Your task to perform on an android device: toggle improve location accuracy Image 0: 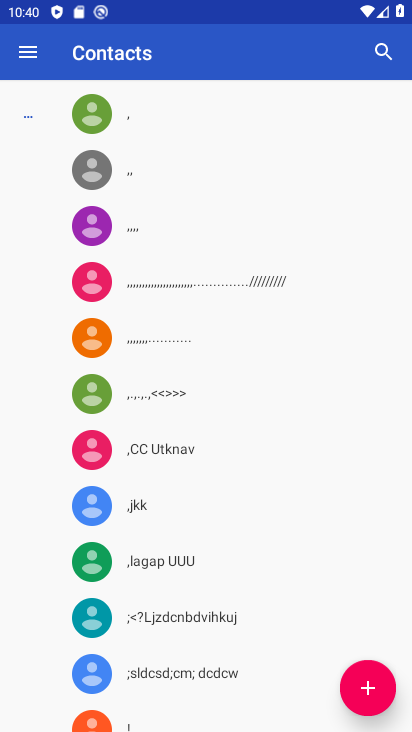
Step 0: press home button
Your task to perform on an android device: toggle improve location accuracy Image 1: 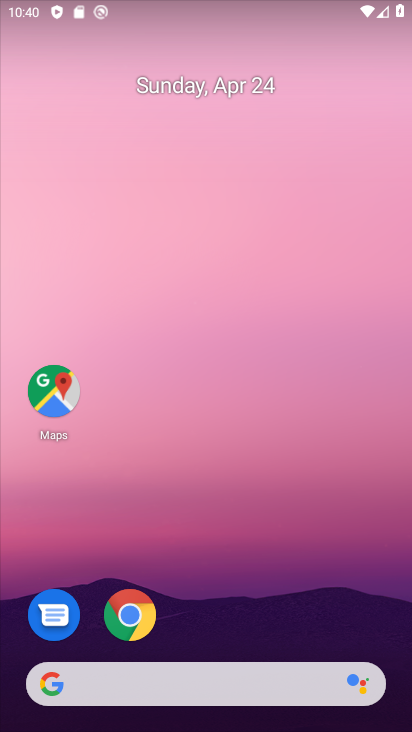
Step 1: drag from (222, 625) to (268, 3)
Your task to perform on an android device: toggle improve location accuracy Image 2: 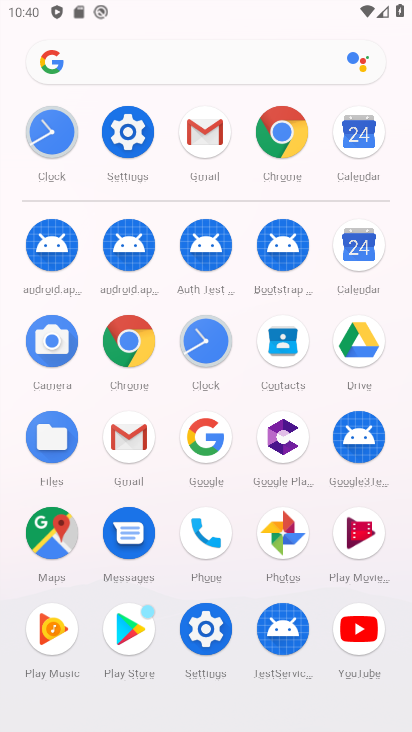
Step 2: click (202, 629)
Your task to perform on an android device: toggle improve location accuracy Image 3: 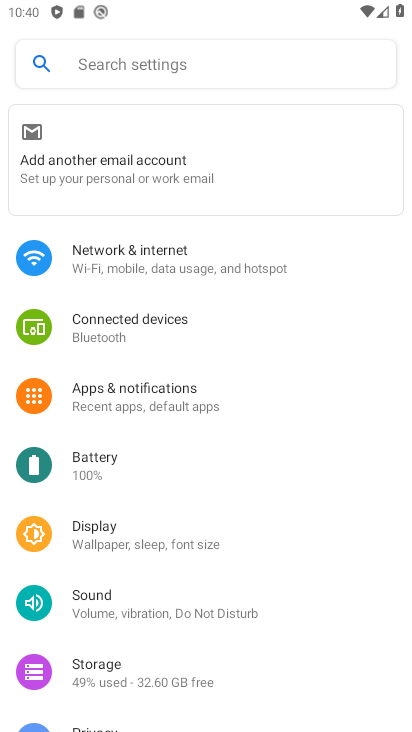
Step 3: drag from (171, 650) to (226, 134)
Your task to perform on an android device: toggle improve location accuracy Image 4: 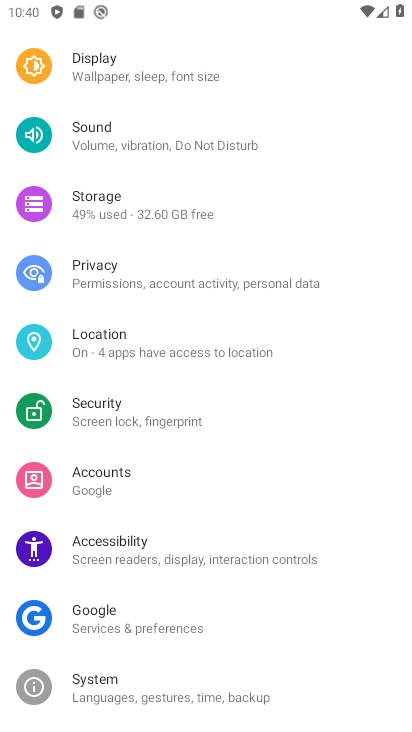
Step 4: click (136, 332)
Your task to perform on an android device: toggle improve location accuracy Image 5: 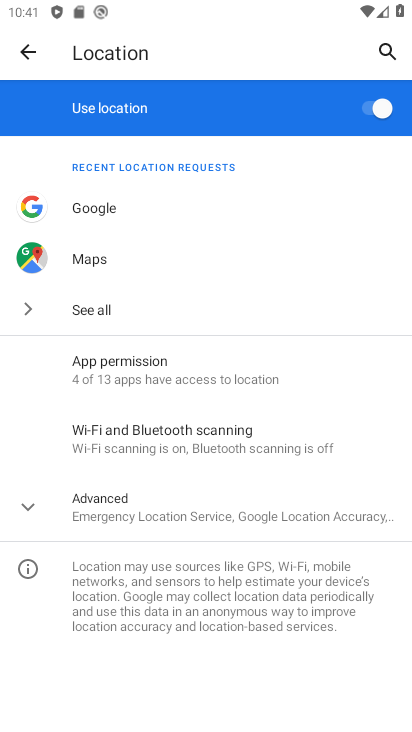
Step 5: click (26, 504)
Your task to perform on an android device: toggle improve location accuracy Image 6: 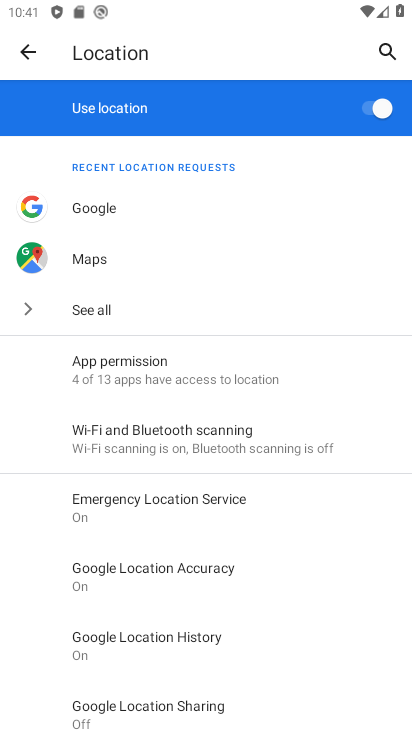
Step 6: click (53, 575)
Your task to perform on an android device: toggle improve location accuracy Image 7: 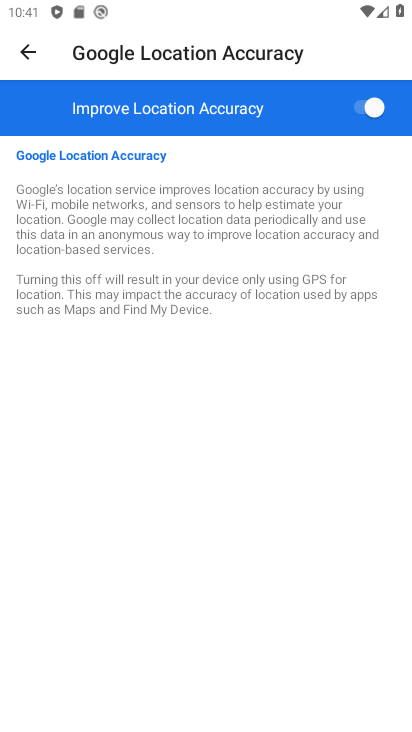
Step 7: click (361, 99)
Your task to perform on an android device: toggle improve location accuracy Image 8: 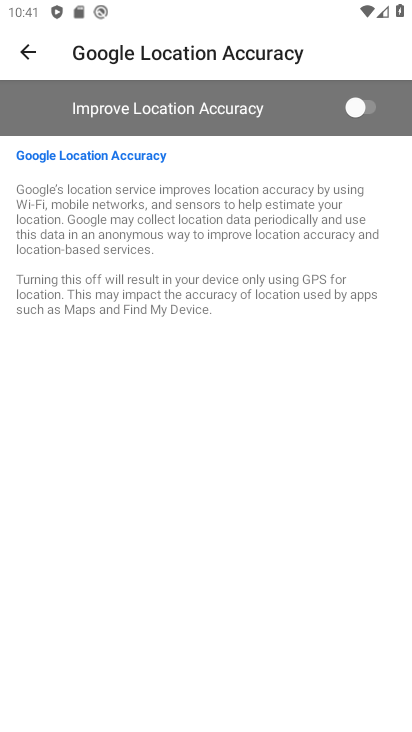
Step 8: task complete